Your task to perform on an android device: Open calendar and show me the fourth week of next month Image 0: 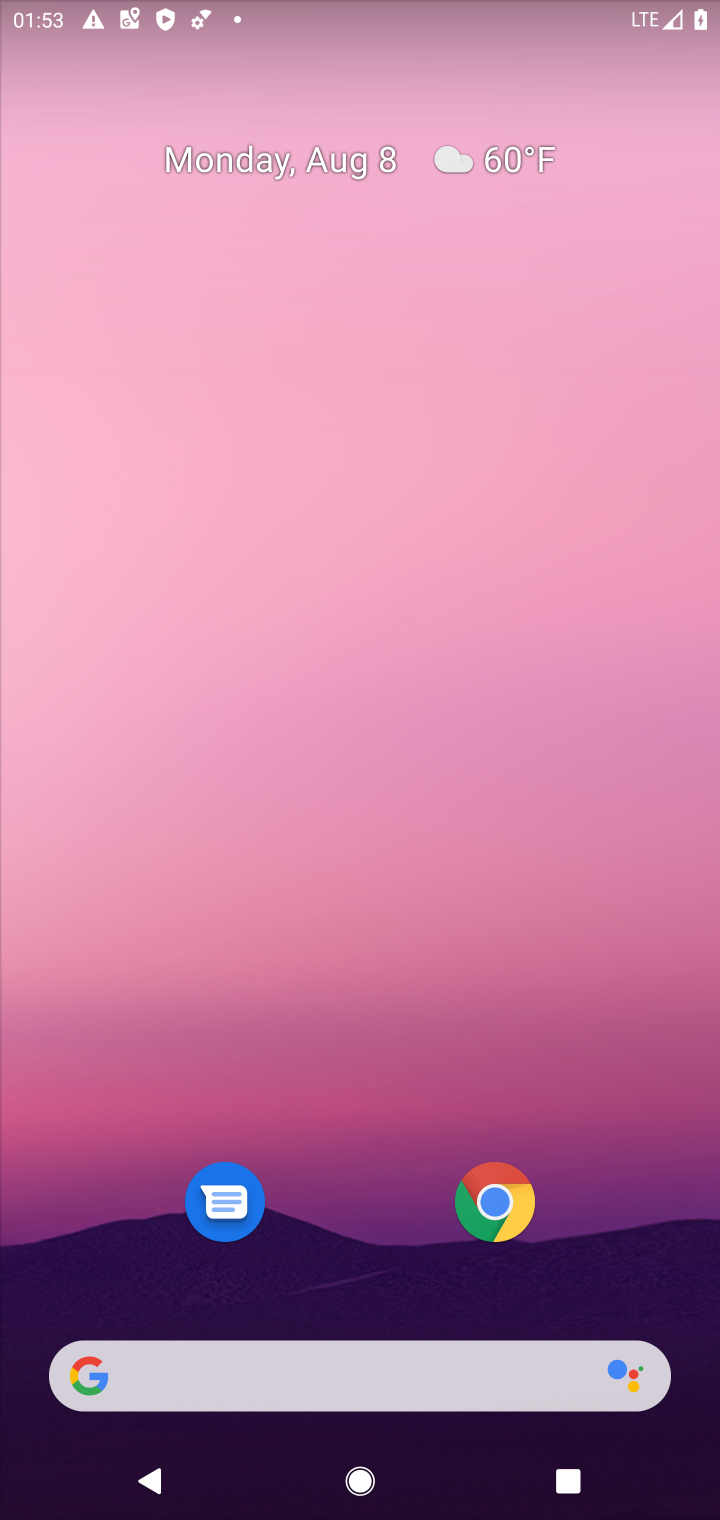
Step 0: click (338, 158)
Your task to perform on an android device: Open calendar and show me the fourth week of next month Image 1: 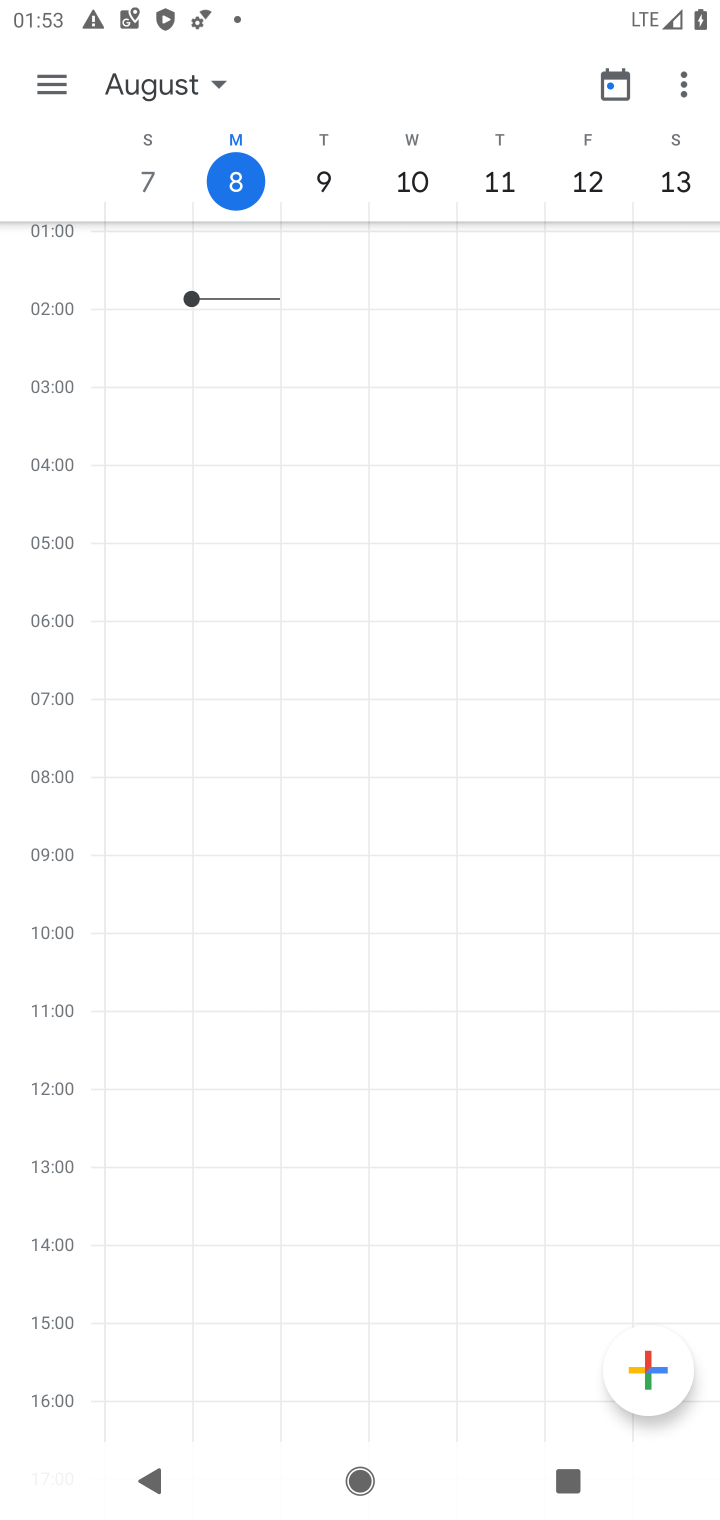
Step 1: click (179, 83)
Your task to perform on an android device: Open calendar and show me the fourth week of next month Image 2: 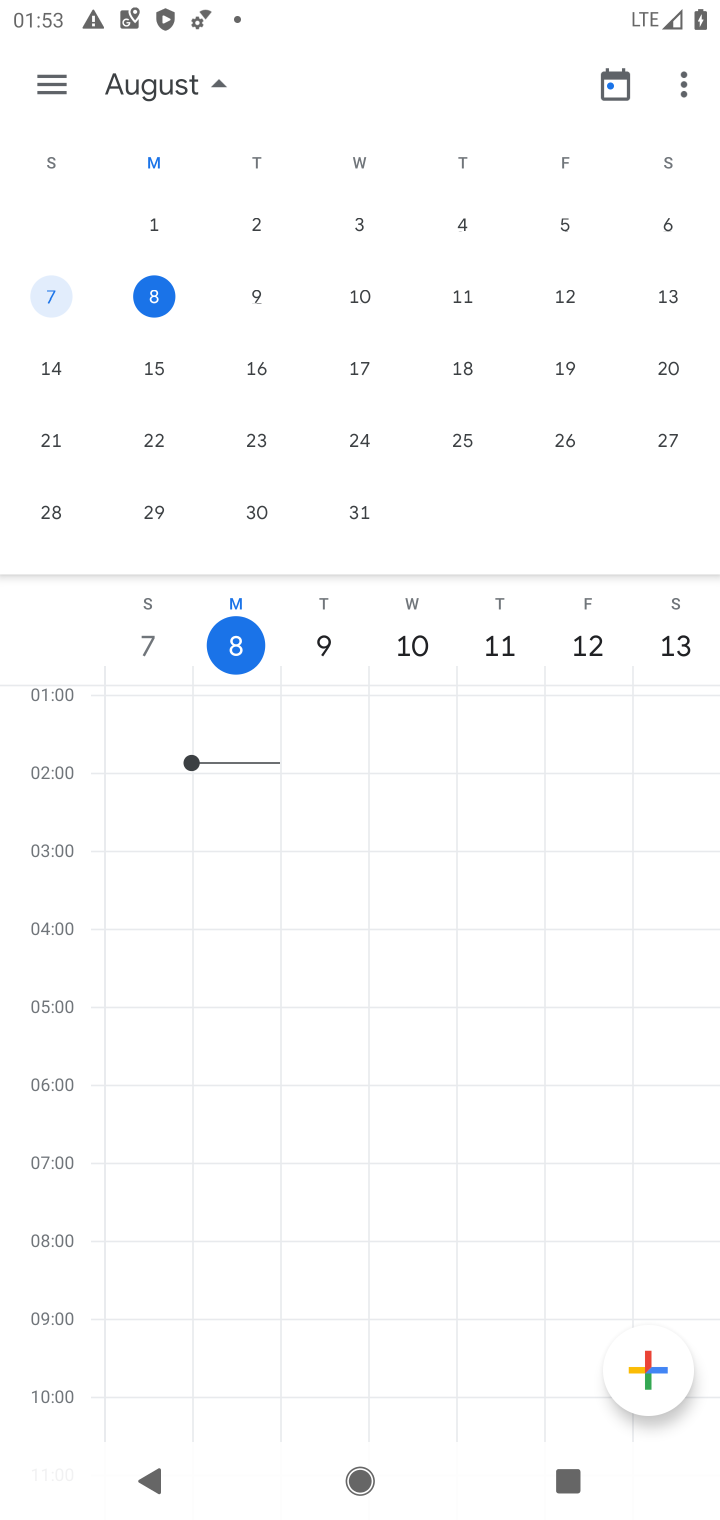
Step 2: drag from (638, 284) to (33, 392)
Your task to perform on an android device: Open calendar and show me the fourth week of next month Image 3: 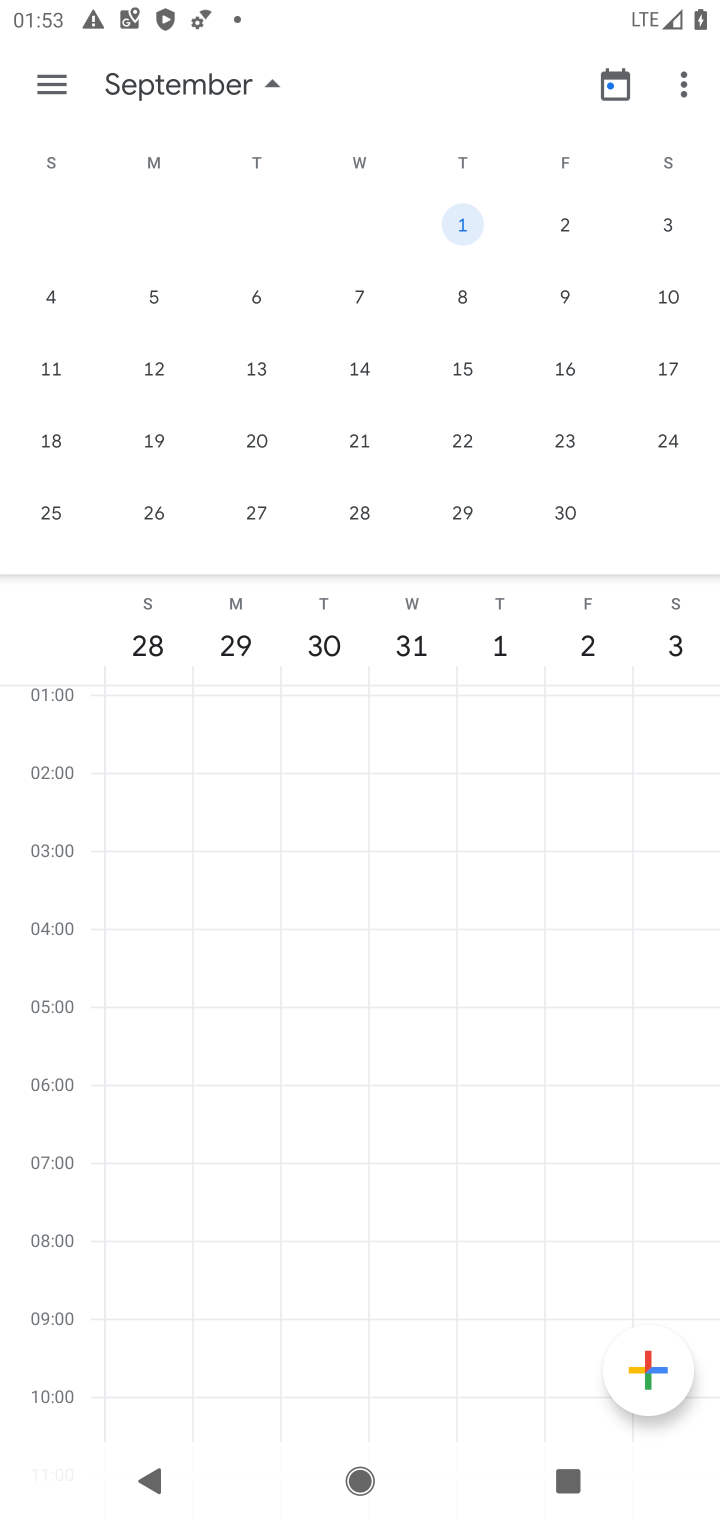
Step 3: click (46, 434)
Your task to perform on an android device: Open calendar and show me the fourth week of next month Image 4: 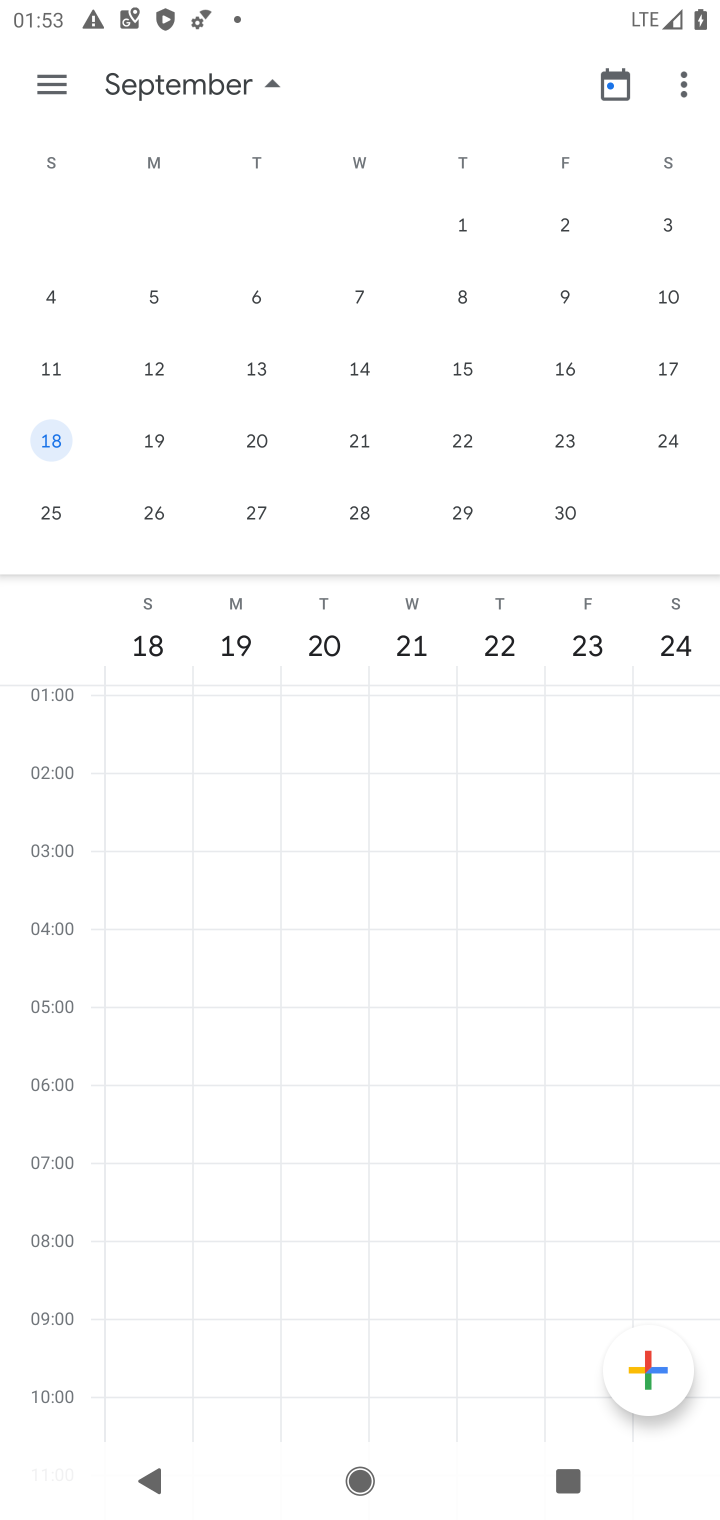
Step 4: task complete